Your task to perform on an android device: Go to eBay Image 0: 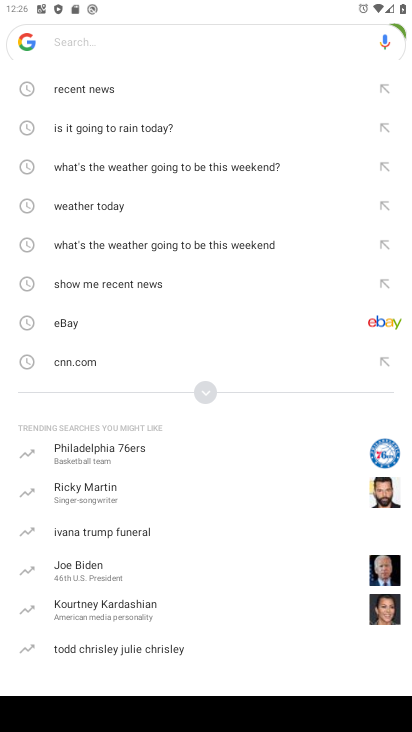
Step 0: press home button
Your task to perform on an android device: Go to eBay Image 1: 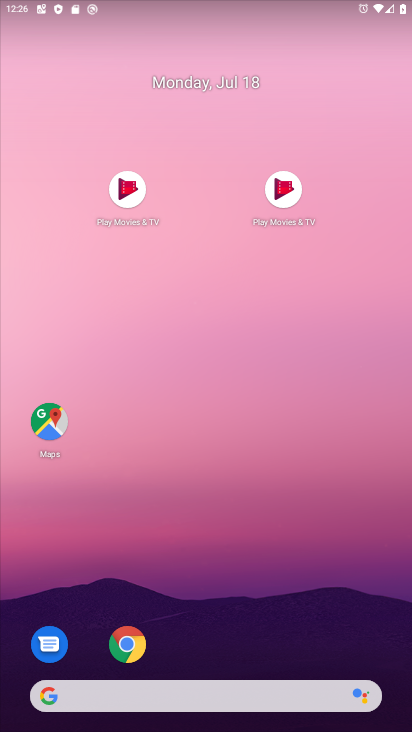
Step 1: drag from (300, 527) to (234, 123)
Your task to perform on an android device: Go to eBay Image 2: 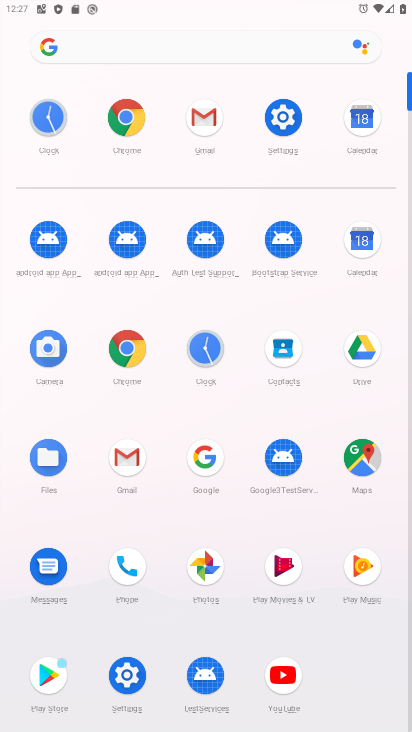
Step 2: click (130, 347)
Your task to perform on an android device: Go to eBay Image 3: 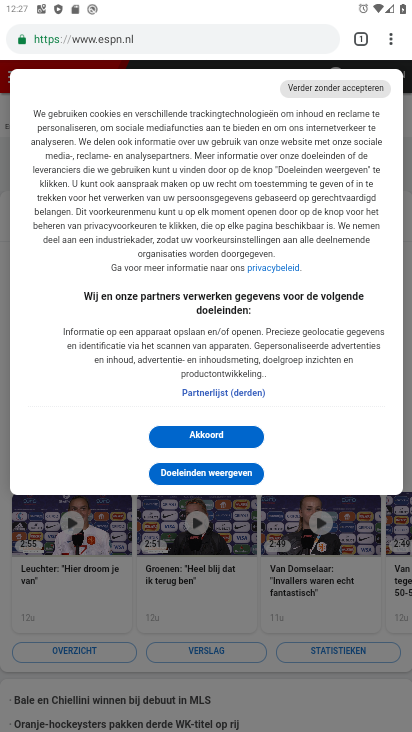
Step 3: click (188, 41)
Your task to perform on an android device: Go to eBay Image 4: 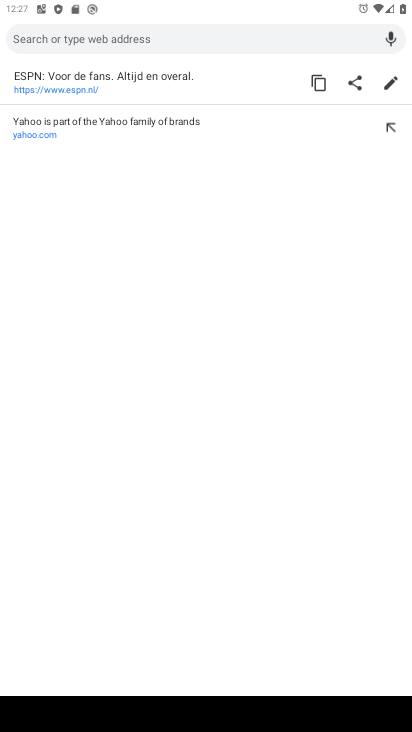
Step 4: type "ebay"
Your task to perform on an android device: Go to eBay Image 5: 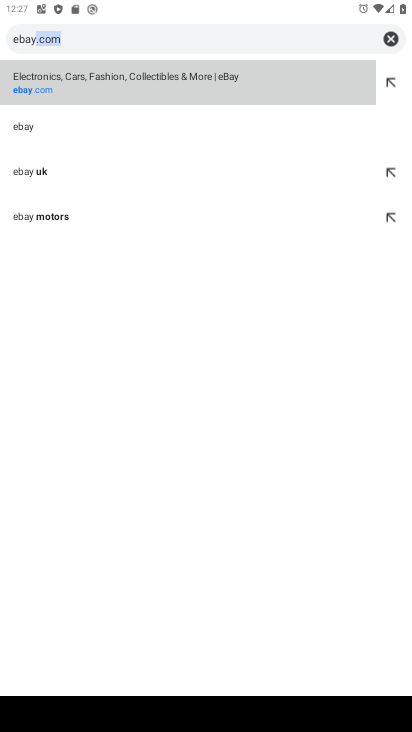
Step 5: click (67, 103)
Your task to perform on an android device: Go to eBay Image 6: 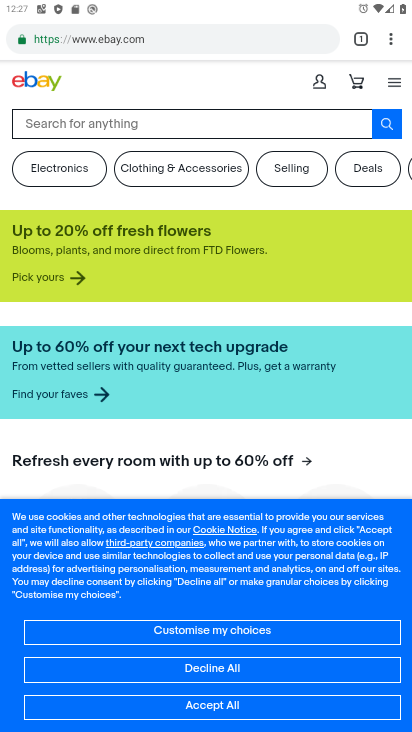
Step 6: task complete